Your task to perform on an android device: Open notification settings Image 0: 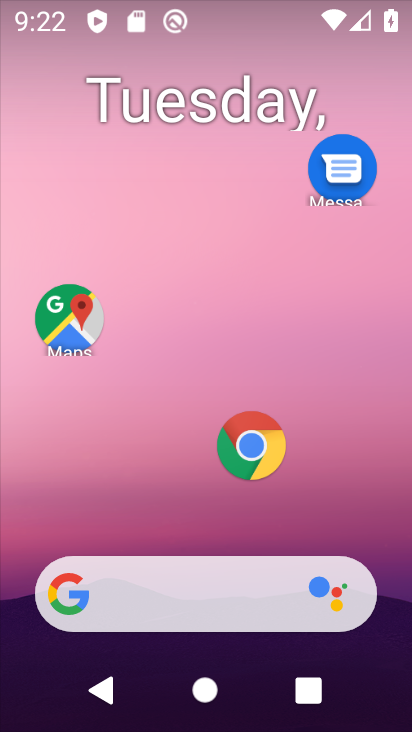
Step 0: drag from (84, 560) to (223, 243)
Your task to perform on an android device: Open notification settings Image 1: 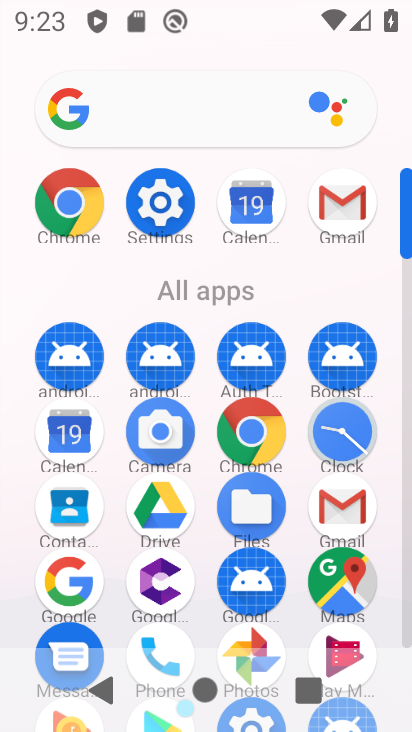
Step 1: click (154, 206)
Your task to perform on an android device: Open notification settings Image 2: 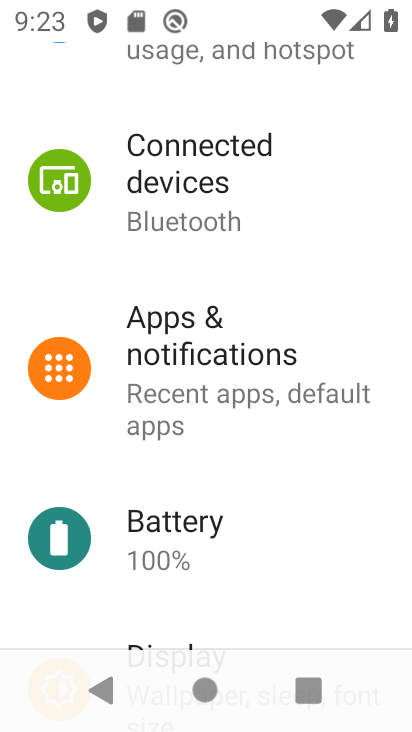
Step 2: click (167, 338)
Your task to perform on an android device: Open notification settings Image 3: 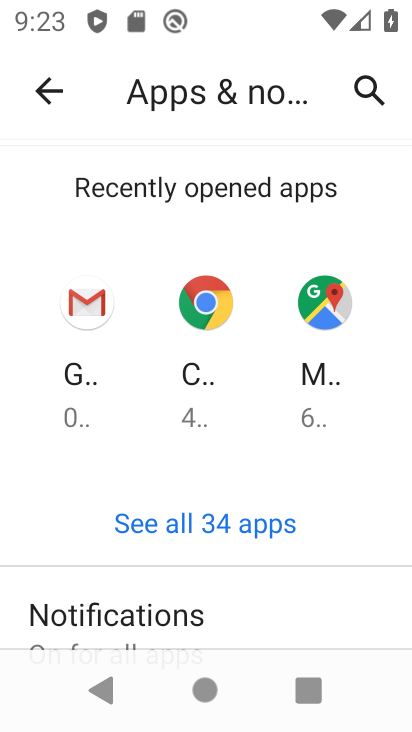
Step 3: click (51, 632)
Your task to perform on an android device: Open notification settings Image 4: 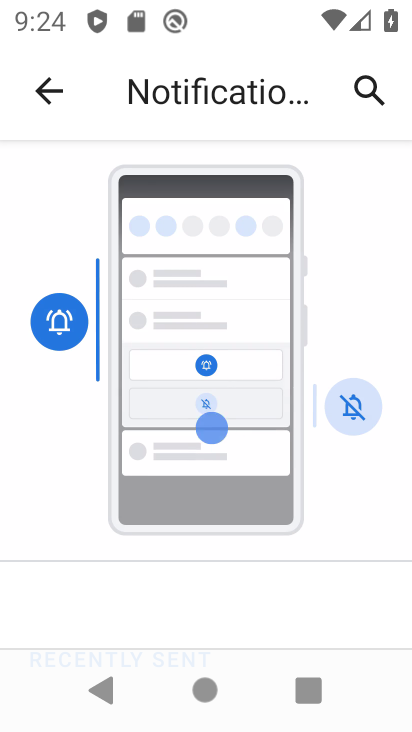
Step 4: task complete